Your task to perform on an android device: Go to Yahoo.com Image 0: 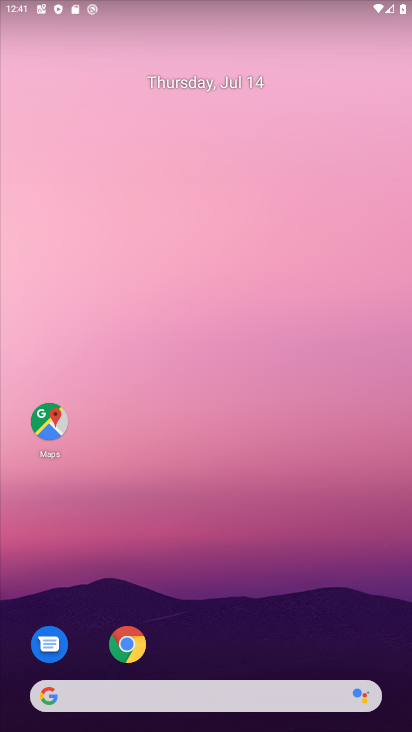
Step 0: drag from (194, 699) to (225, 58)
Your task to perform on an android device: Go to Yahoo.com Image 1: 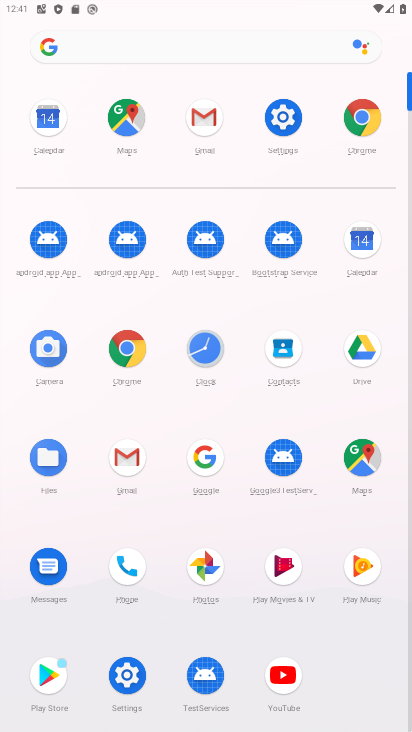
Step 1: click (119, 357)
Your task to perform on an android device: Go to Yahoo.com Image 2: 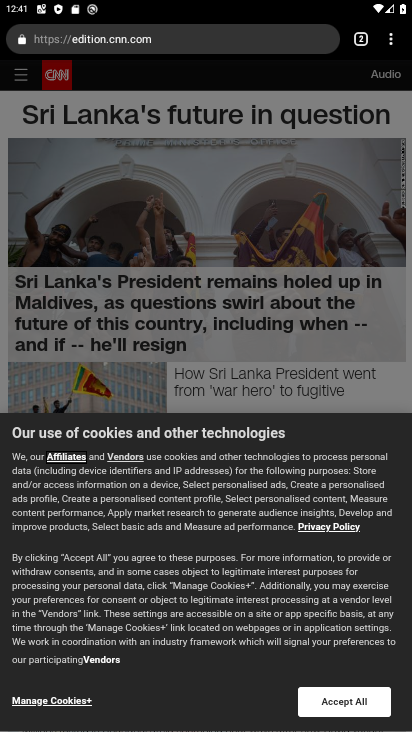
Step 2: press back button
Your task to perform on an android device: Go to Yahoo.com Image 3: 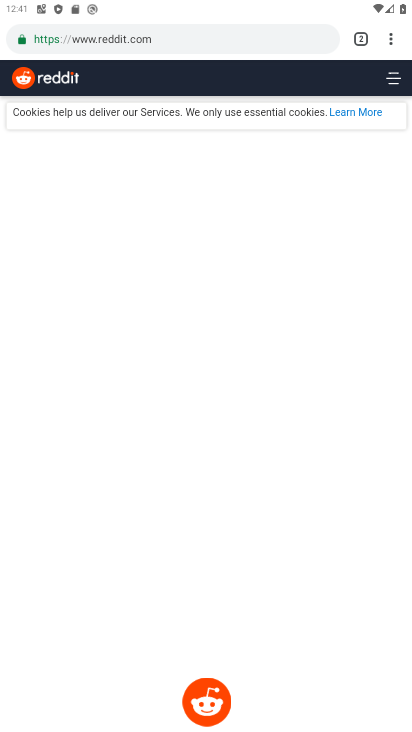
Step 3: press back button
Your task to perform on an android device: Go to Yahoo.com Image 4: 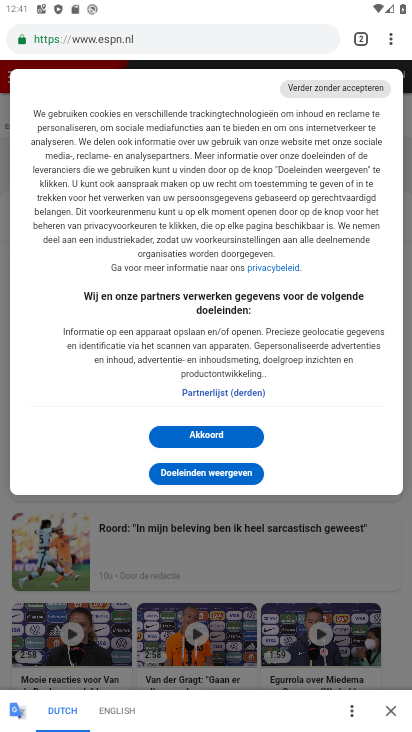
Step 4: drag from (389, 31) to (357, 59)
Your task to perform on an android device: Go to Yahoo.com Image 5: 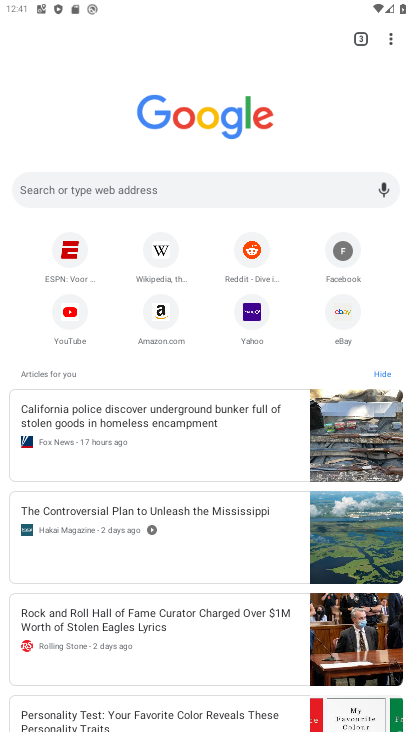
Step 5: click (261, 329)
Your task to perform on an android device: Go to Yahoo.com Image 6: 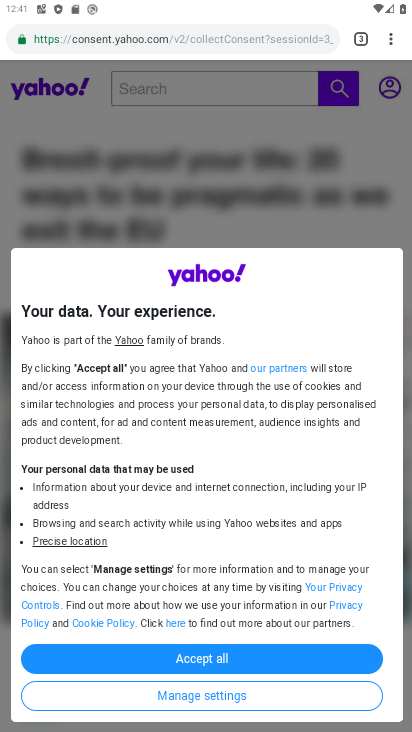
Step 6: task complete